Your task to perform on an android device: clear all cookies in the chrome app Image 0: 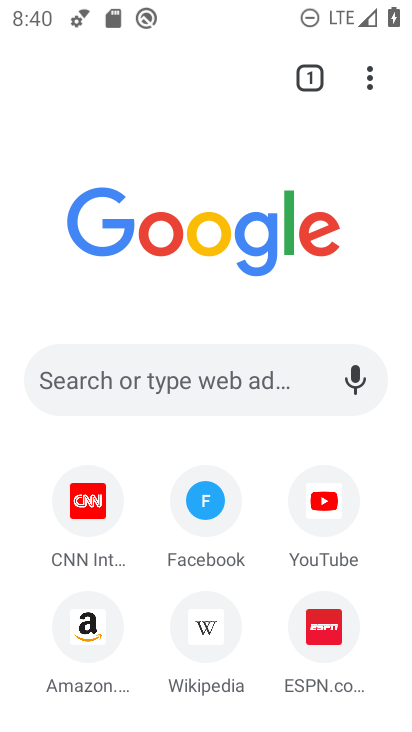
Step 0: click (371, 68)
Your task to perform on an android device: clear all cookies in the chrome app Image 1: 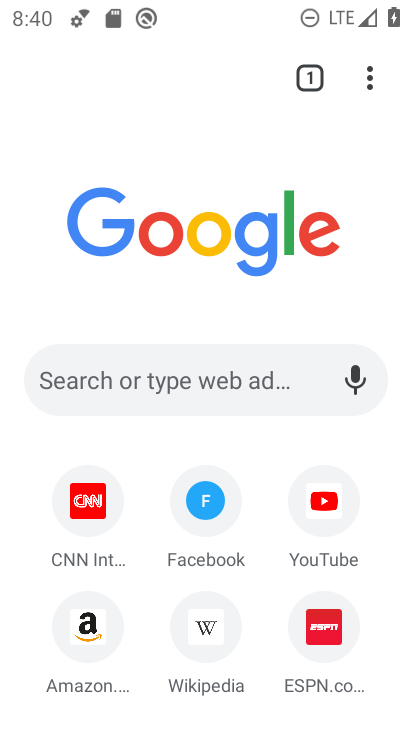
Step 1: drag from (371, 68) to (100, 439)
Your task to perform on an android device: clear all cookies in the chrome app Image 2: 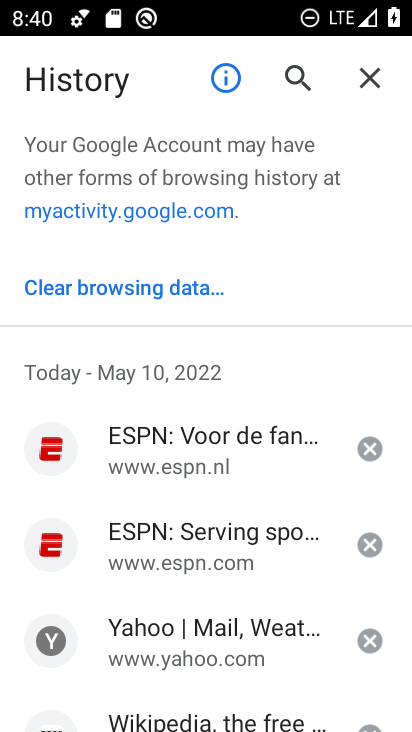
Step 2: click (126, 275)
Your task to perform on an android device: clear all cookies in the chrome app Image 3: 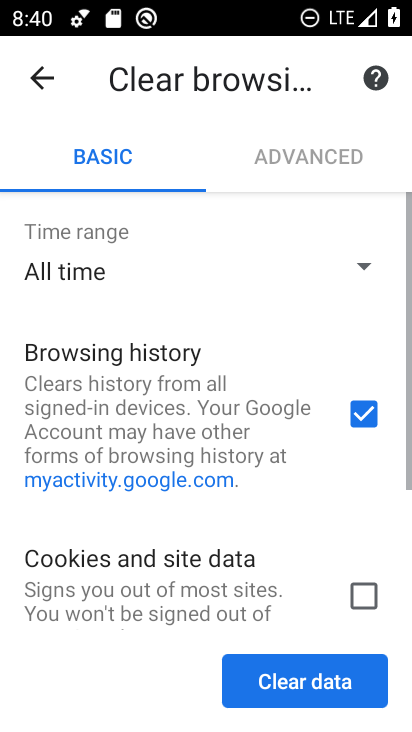
Step 3: drag from (222, 600) to (219, 445)
Your task to perform on an android device: clear all cookies in the chrome app Image 4: 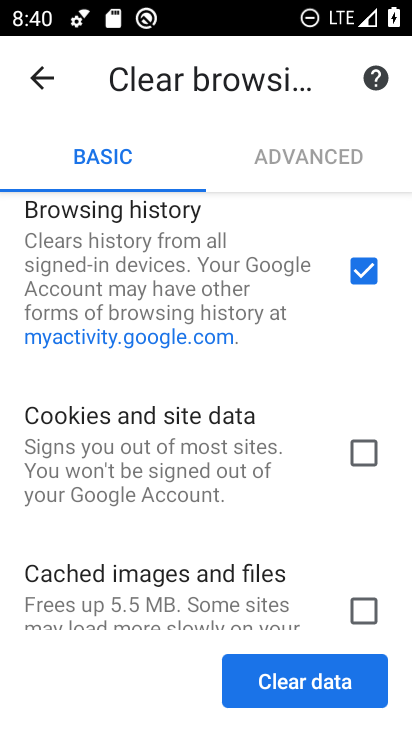
Step 4: drag from (140, 327) to (165, 448)
Your task to perform on an android device: clear all cookies in the chrome app Image 5: 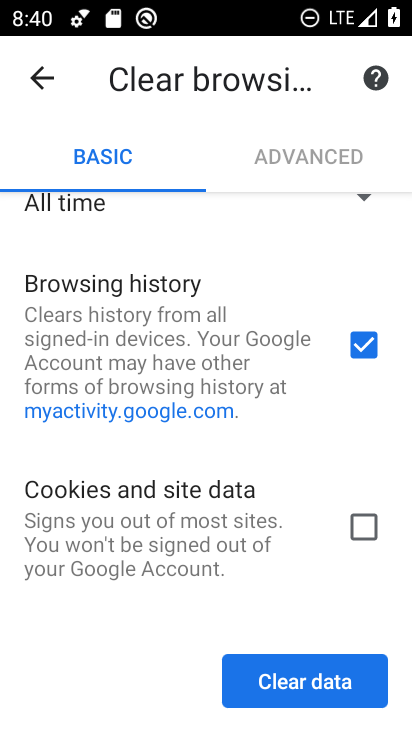
Step 5: click (372, 525)
Your task to perform on an android device: clear all cookies in the chrome app Image 6: 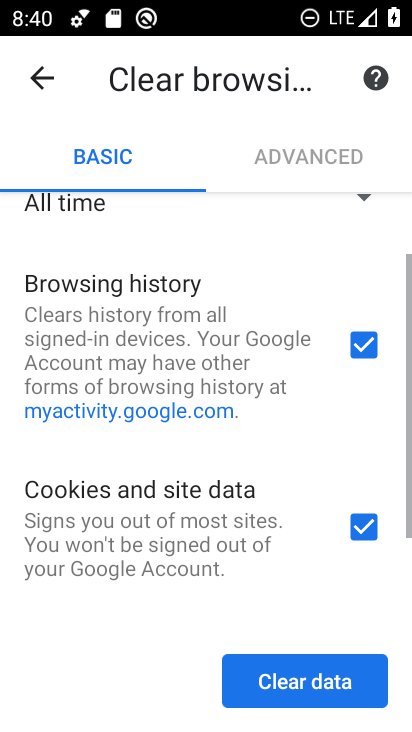
Step 6: drag from (206, 545) to (236, 273)
Your task to perform on an android device: clear all cookies in the chrome app Image 7: 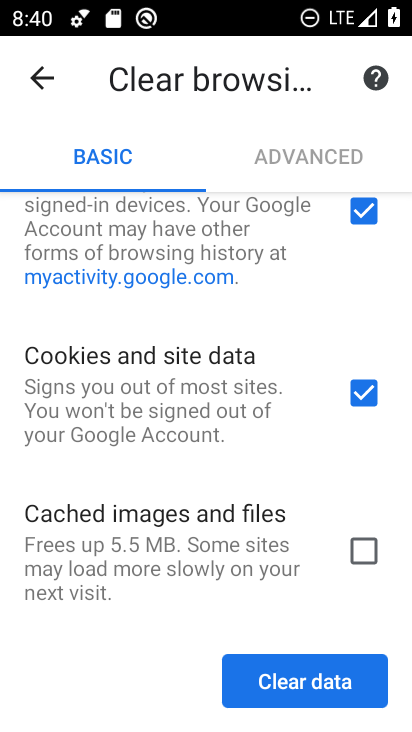
Step 7: click (272, 678)
Your task to perform on an android device: clear all cookies in the chrome app Image 8: 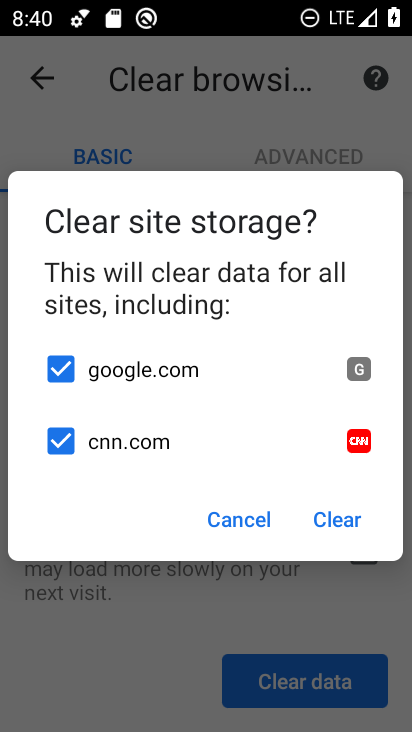
Step 8: click (321, 497)
Your task to perform on an android device: clear all cookies in the chrome app Image 9: 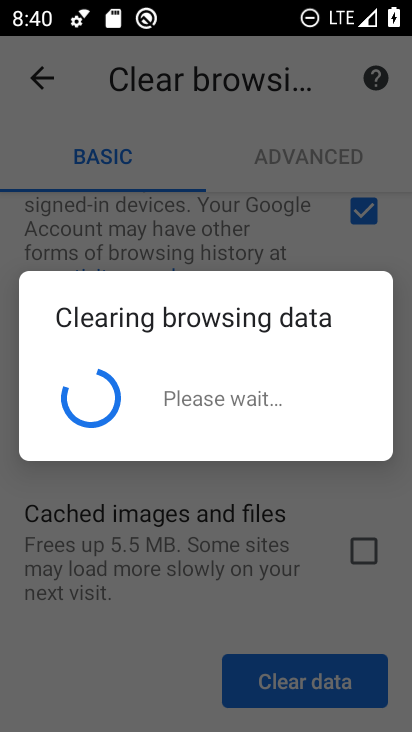
Step 9: task complete